Your task to perform on an android device: open the mobile data screen to see how much data has been used Image 0: 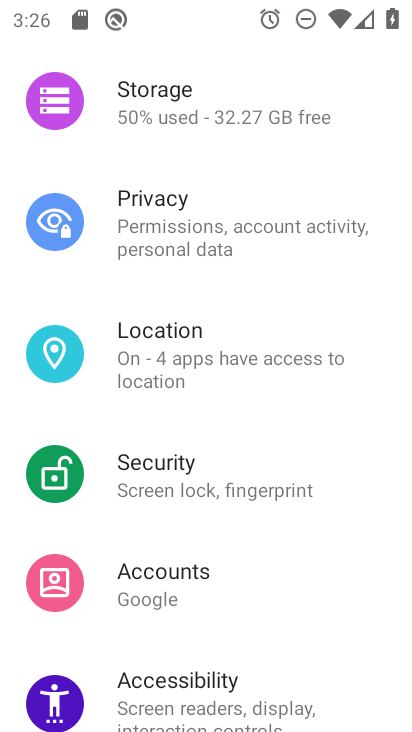
Step 0: drag from (172, 282) to (221, 574)
Your task to perform on an android device: open the mobile data screen to see how much data has been used Image 1: 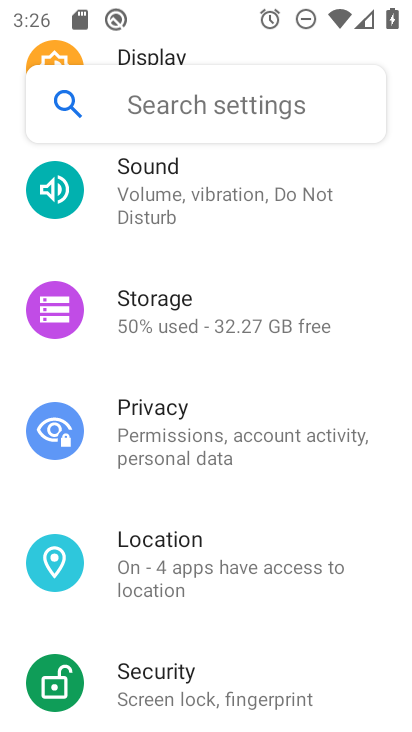
Step 1: drag from (239, 214) to (288, 579)
Your task to perform on an android device: open the mobile data screen to see how much data has been used Image 2: 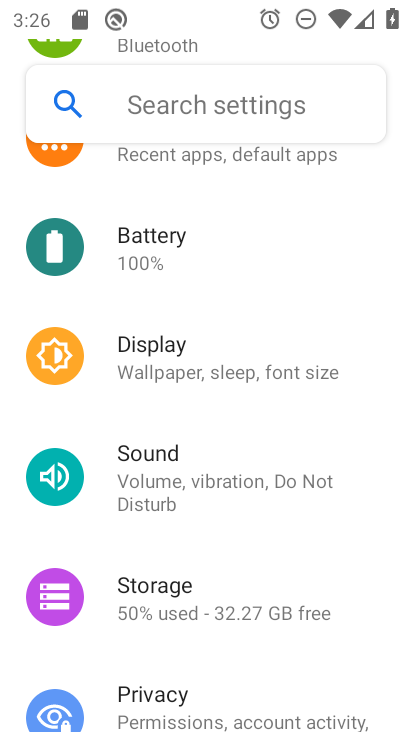
Step 2: drag from (294, 293) to (319, 712)
Your task to perform on an android device: open the mobile data screen to see how much data has been used Image 3: 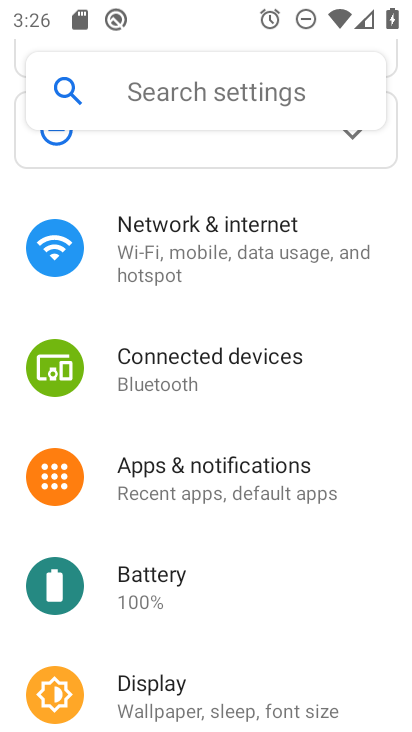
Step 3: click (244, 250)
Your task to perform on an android device: open the mobile data screen to see how much data has been used Image 4: 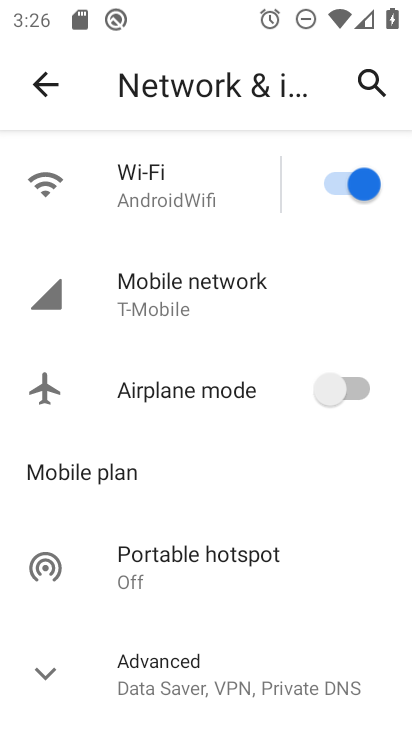
Step 4: click (202, 296)
Your task to perform on an android device: open the mobile data screen to see how much data has been used Image 5: 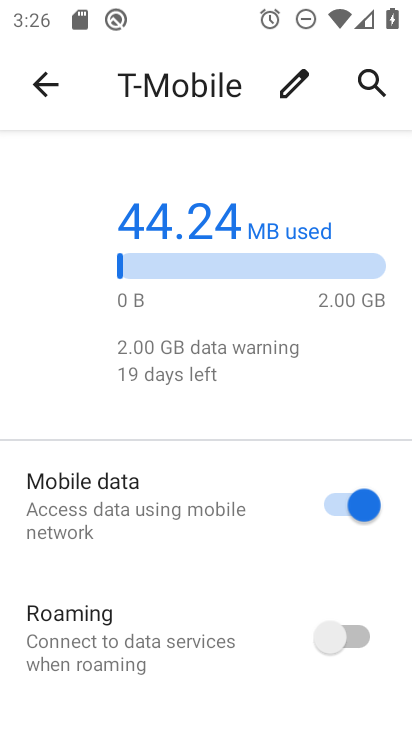
Step 5: drag from (263, 599) to (264, 486)
Your task to perform on an android device: open the mobile data screen to see how much data has been used Image 6: 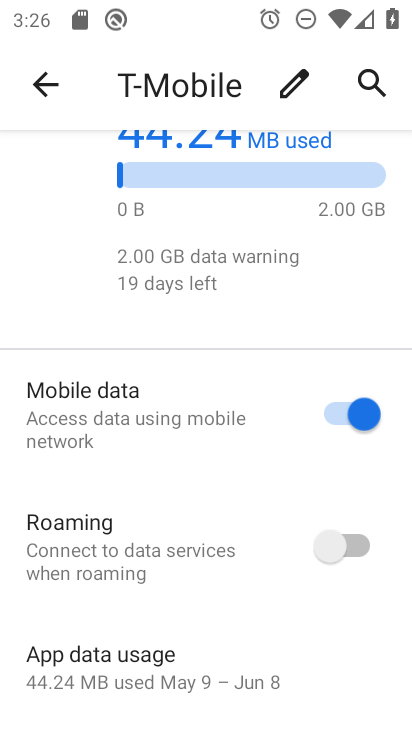
Step 6: click (144, 673)
Your task to perform on an android device: open the mobile data screen to see how much data has been used Image 7: 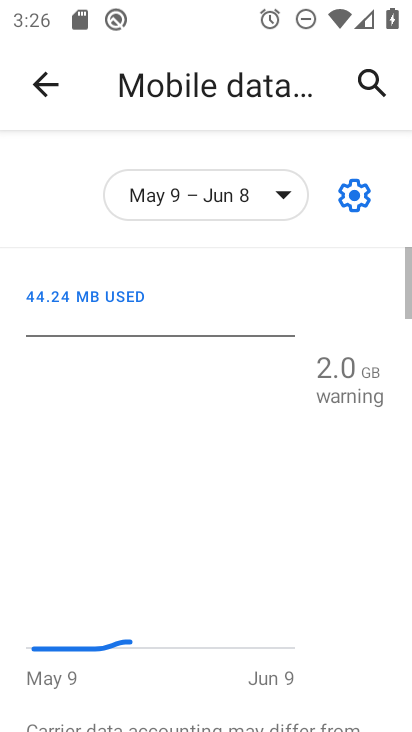
Step 7: task complete